Your task to perform on an android device: turn smart compose on in the gmail app Image 0: 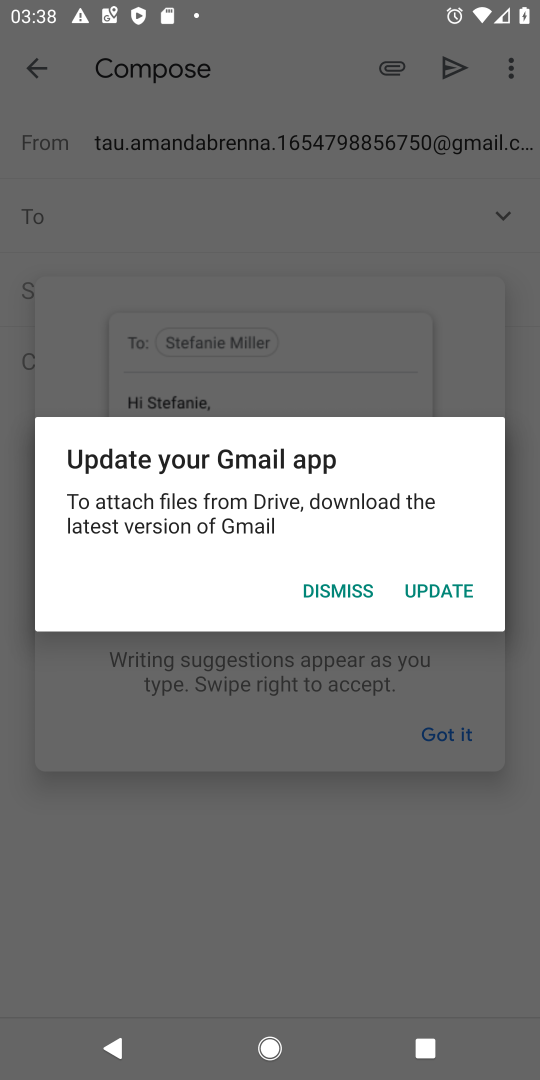
Step 0: press home button
Your task to perform on an android device: turn smart compose on in the gmail app Image 1: 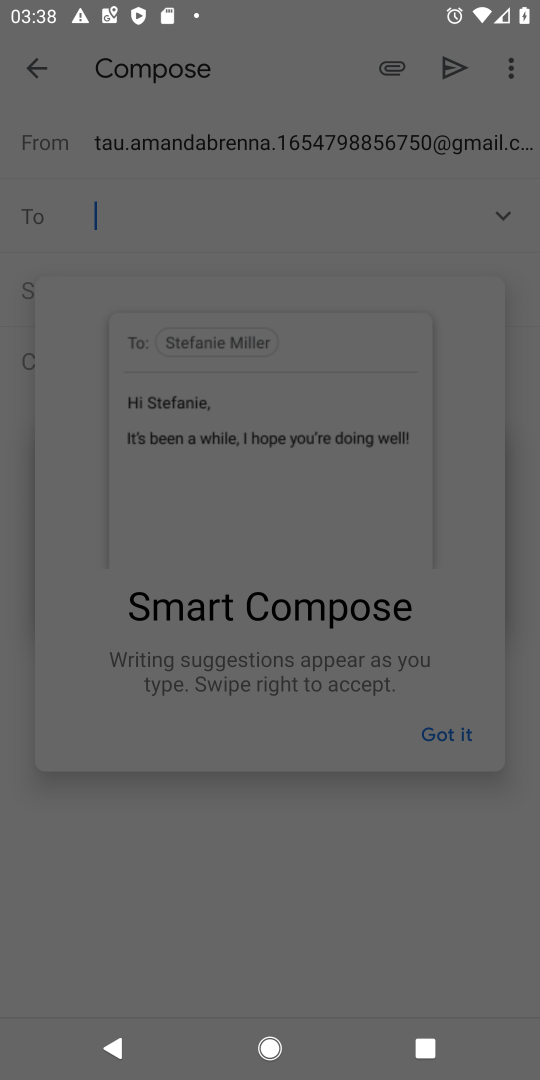
Step 1: press home button
Your task to perform on an android device: turn smart compose on in the gmail app Image 2: 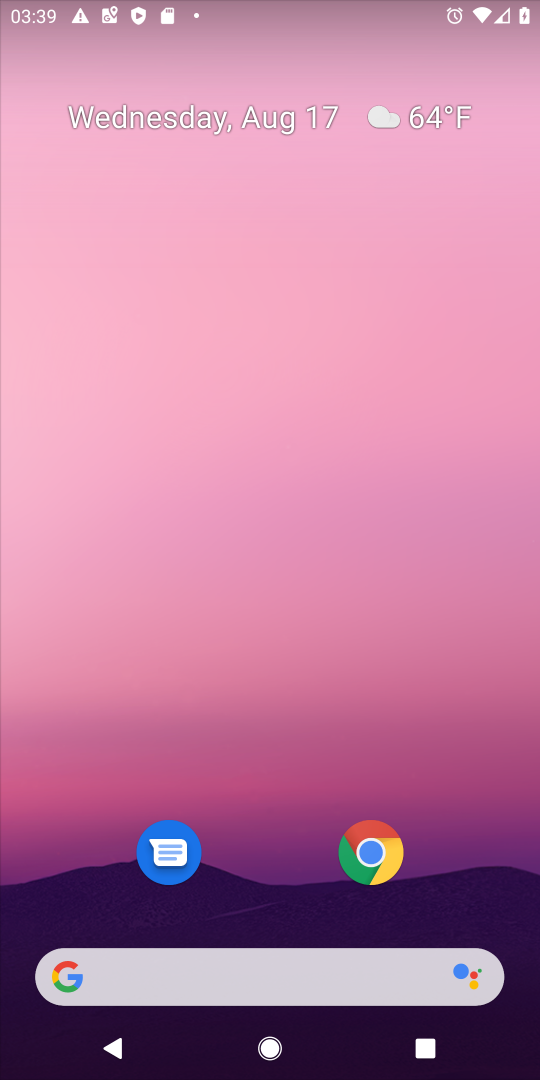
Step 2: drag from (266, 856) to (305, 46)
Your task to perform on an android device: turn smart compose on in the gmail app Image 3: 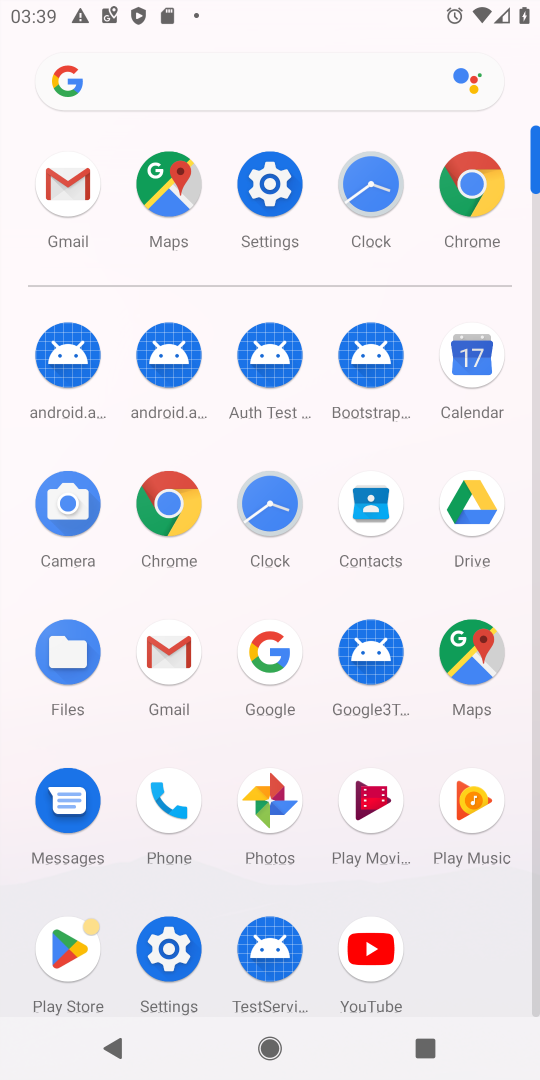
Step 3: click (169, 656)
Your task to perform on an android device: turn smart compose on in the gmail app Image 4: 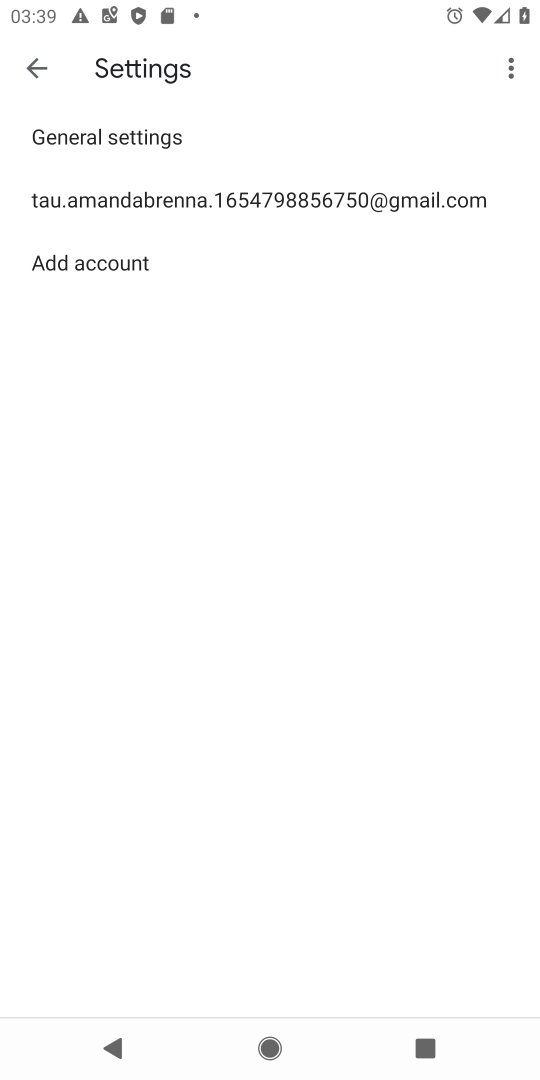
Step 4: click (88, 199)
Your task to perform on an android device: turn smart compose on in the gmail app Image 5: 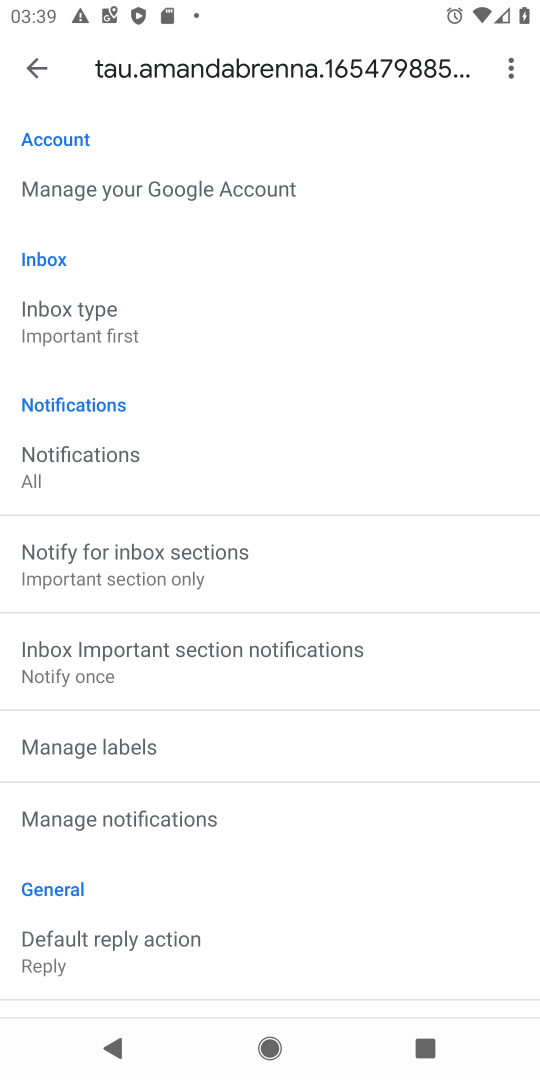
Step 5: task complete